Your task to perform on an android device: Toggle the flashlight Image 0: 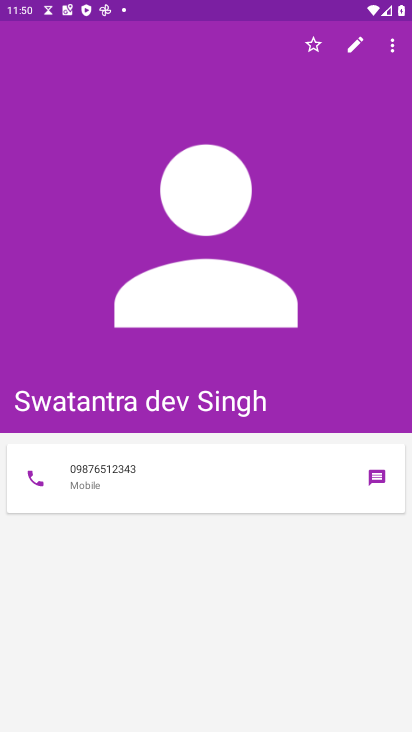
Step 0: press back button
Your task to perform on an android device: Toggle the flashlight Image 1: 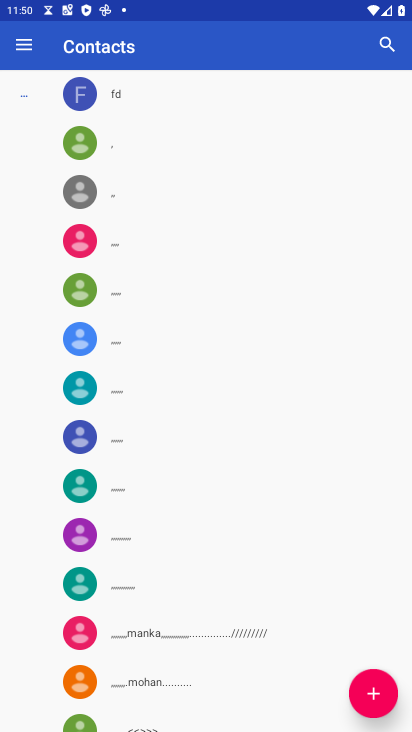
Step 1: press back button
Your task to perform on an android device: Toggle the flashlight Image 2: 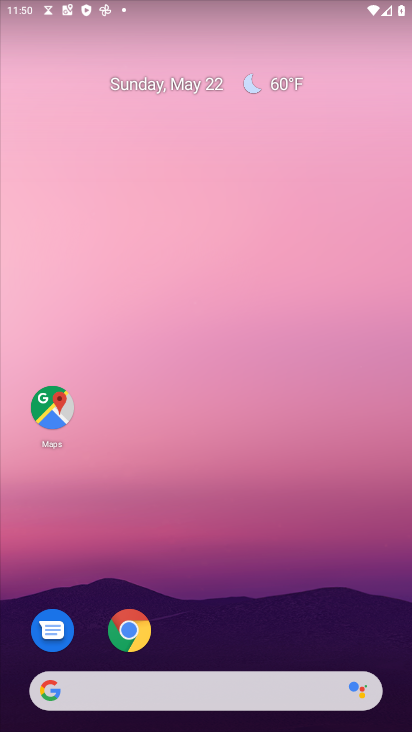
Step 2: drag from (235, 611) to (230, 151)
Your task to perform on an android device: Toggle the flashlight Image 3: 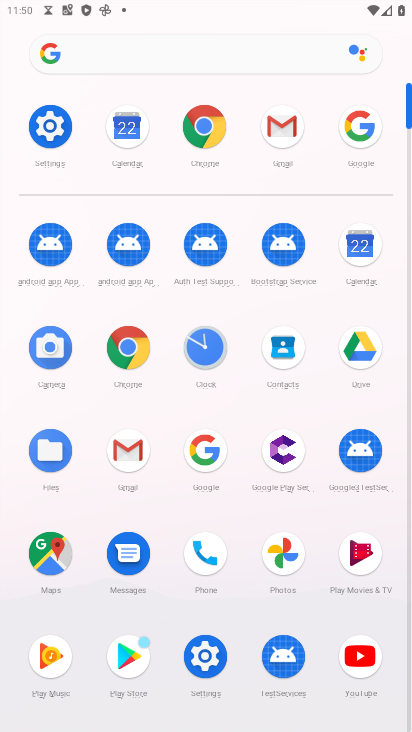
Step 3: click (47, 126)
Your task to perform on an android device: Toggle the flashlight Image 4: 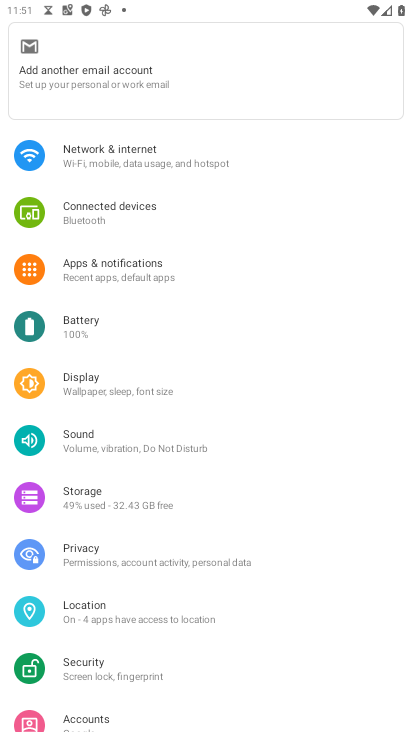
Step 4: drag from (140, 566) to (207, 449)
Your task to perform on an android device: Toggle the flashlight Image 5: 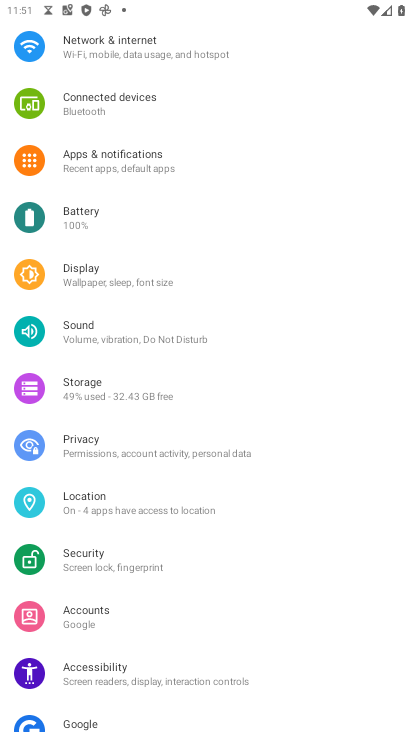
Step 5: drag from (130, 586) to (195, 492)
Your task to perform on an android device: Toggle the flashlight Image 6: 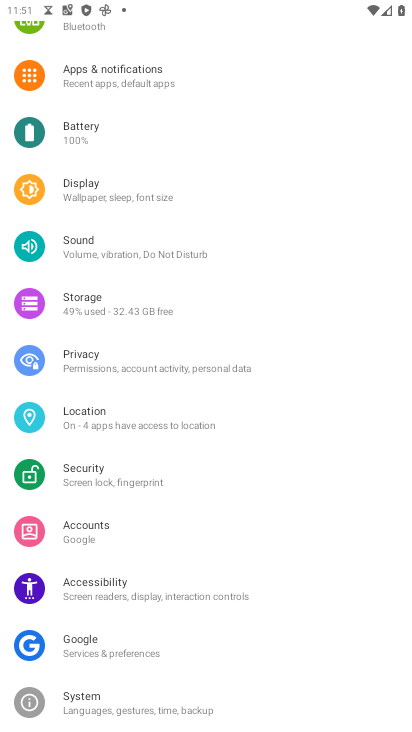
Step 6: drag from (185, 595) to (251, 482)
Your task to perform on an android device: Toggle the flashlight Image 7: 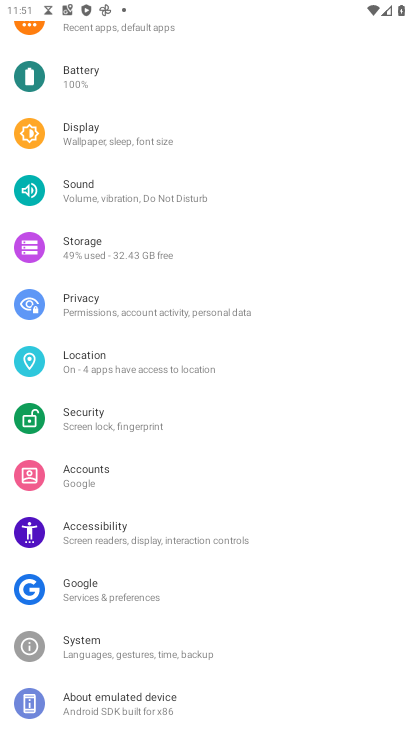
Step 7: drag from (164, 684) to (234, 577)
Your task to perform on an android device: Toggle the flashlight Image 8: 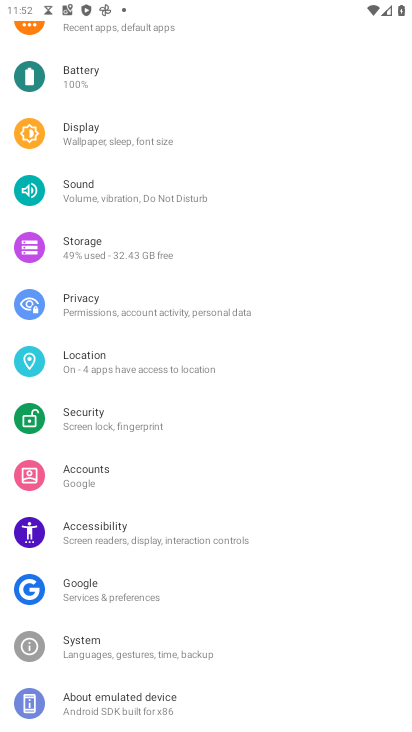
Step 8: drag from (181, 666) to (250, 554)
Your task to perform on an android device: Toggle the flashlight Image 9: 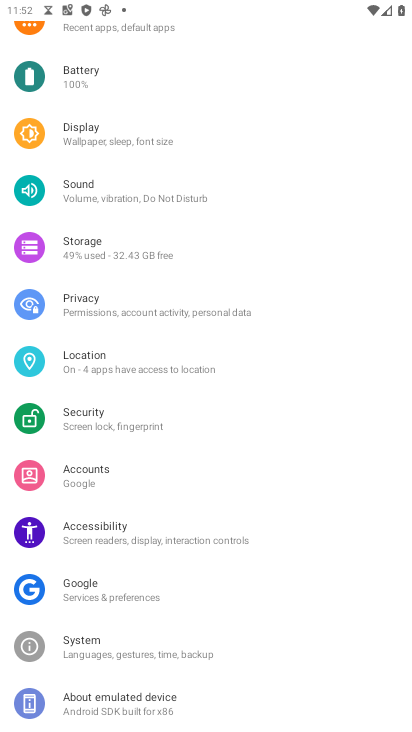
Step 9: click (189, 536)
Your task to perform on an android device: Toggle the flashlight Image 10: 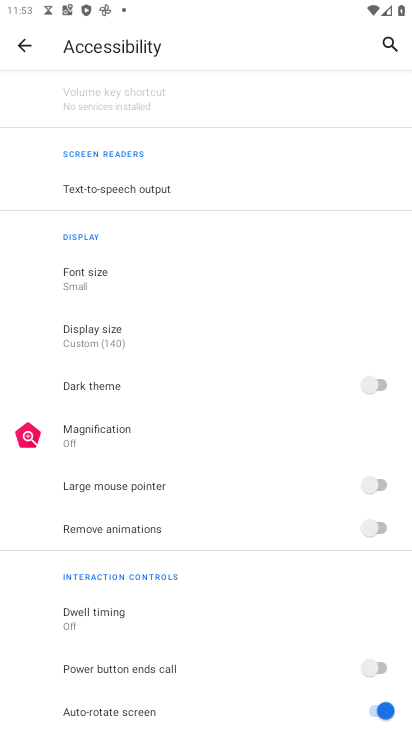
Step 10: task complete